Your task to perform on an android device: turn smart compose on in the gmail app Image 0: 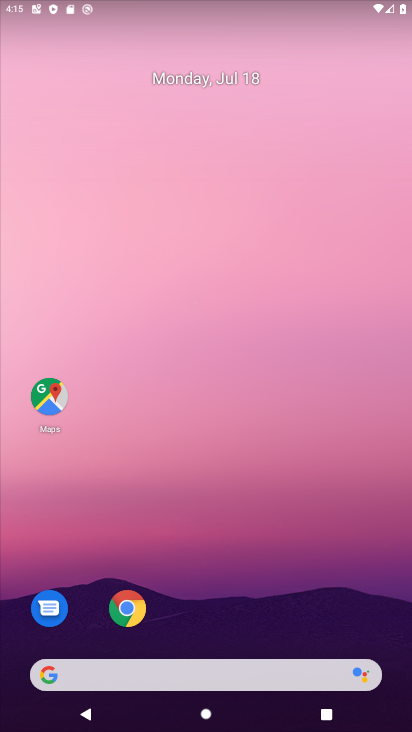
Step 0: drag from (353, 631) to (323, 48)
Your task to perform on an android device: turn smart compose on in the gmail app Image 1: 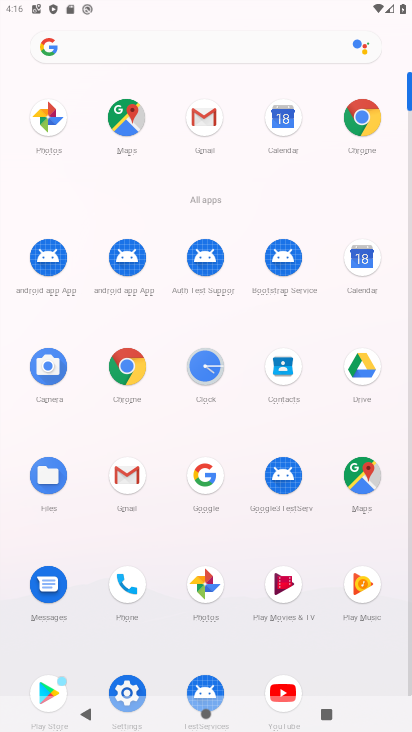
Step 1: click (211, 120)
Your task to perform on an android device: turn smart compose on in the gmail app Image 2: 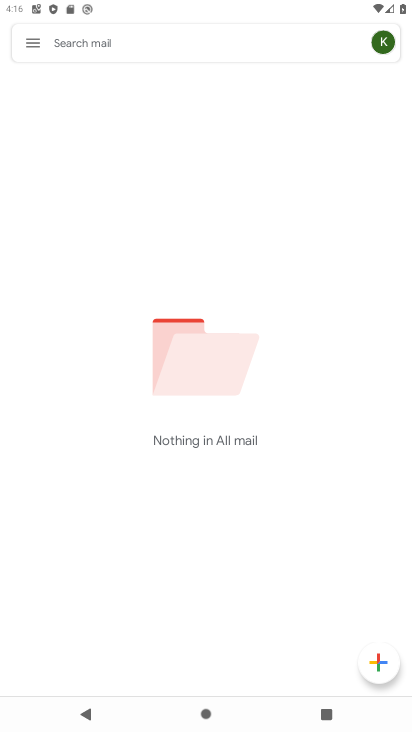
Step 2: click (31, 32)
Your task to perform on an android device: turn smart compose on in the gmail app Image 3: 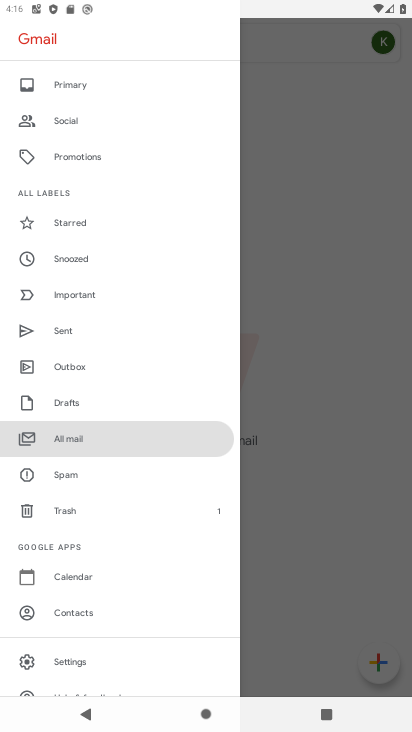
Step 3: click (162, 660)
Your task to perform on an android device: turn smart compose on in the gmail app Image 4: 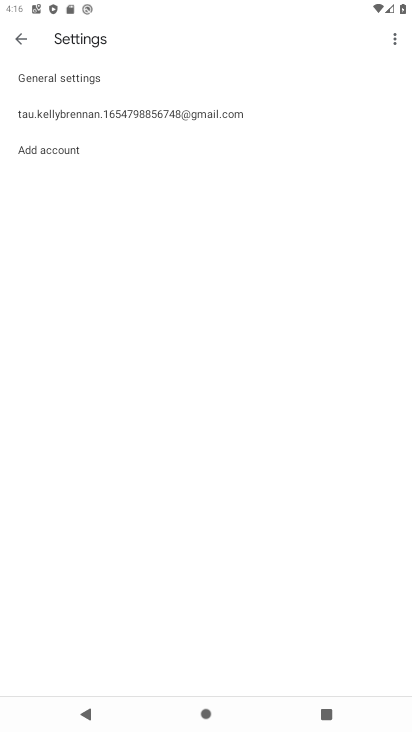
Step 4: click (80, 126)
Your task to perform on an android device: turn smart compose on in the gmail app Image 5: 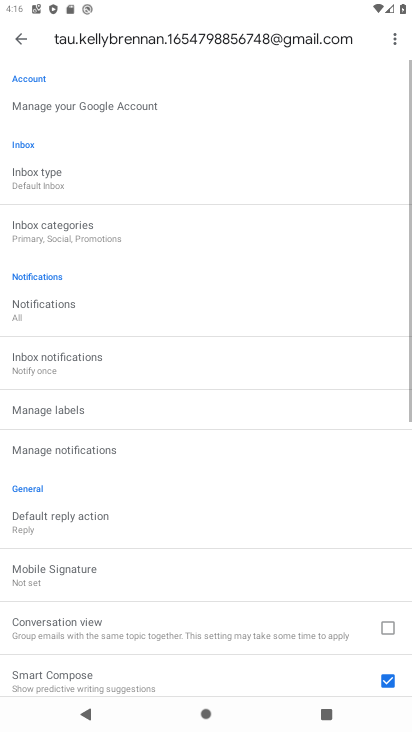
Step 5: task complete